Your task to perform on an android device: Show me popular videos on Youtube Image 0: 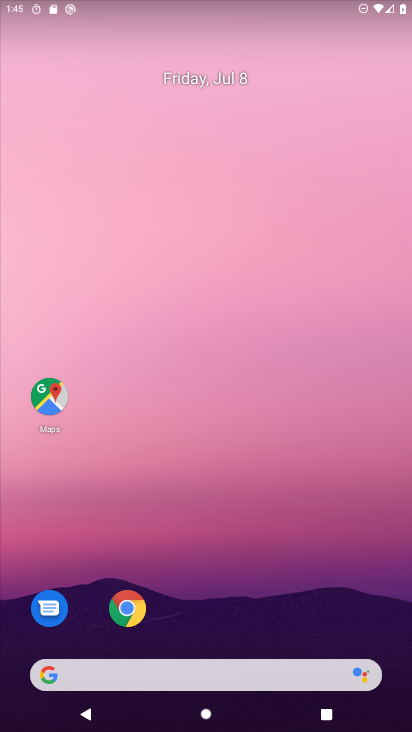
Step 0: drag from (240, 725) to (231, 185)
Your task to perform on an android device: Show me popular videos on Youtube Image 1: 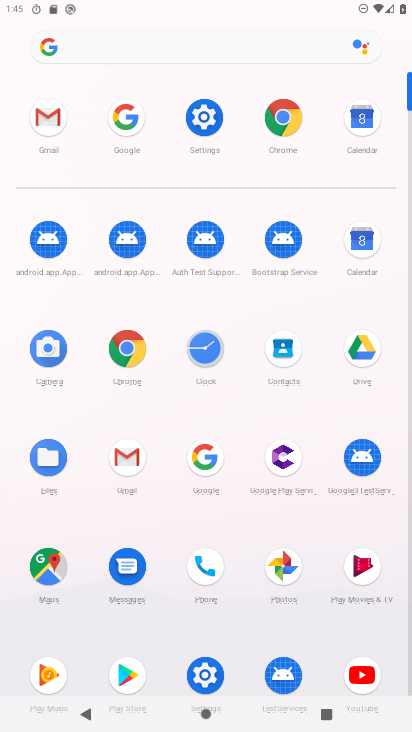
Step 1: click (366, 680)
Your task to perform on an android device: Show me popular videos on Youtube Image 2: 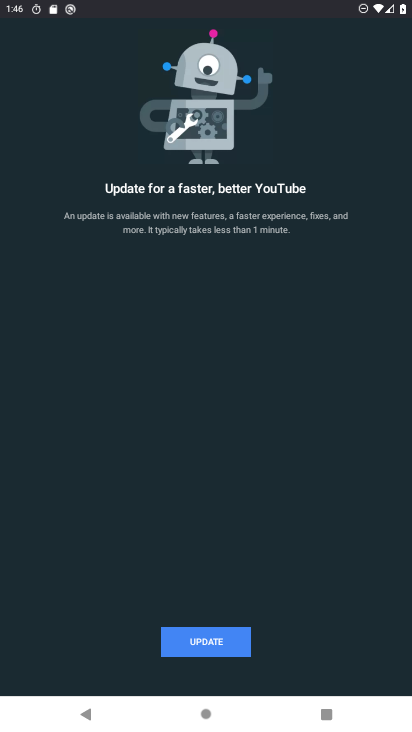
Step 2: task complete